Your task to perform on an android device: toggle pop-ups in chrome Image 0: 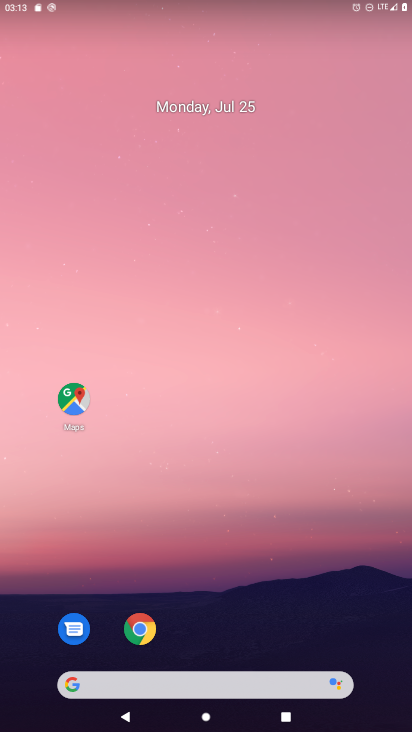
Step 0: click (135, 627)
Your task to perform on an android device: toggle pop-ups in chrome Image 1: 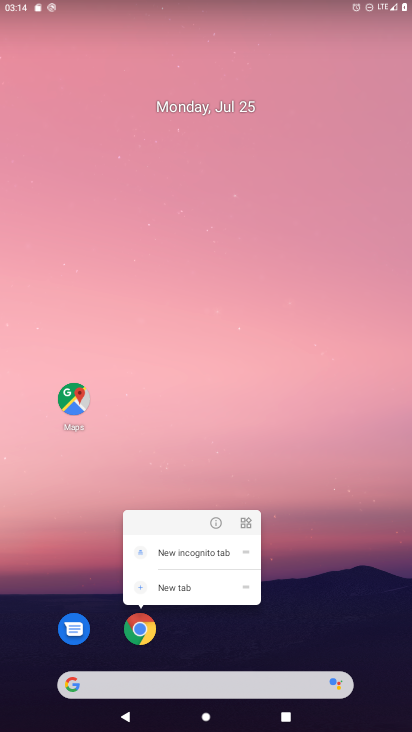
Step 1: click (148, 640)
Your task to perform on an android device: toggle pop-ups in chrome Image 2: 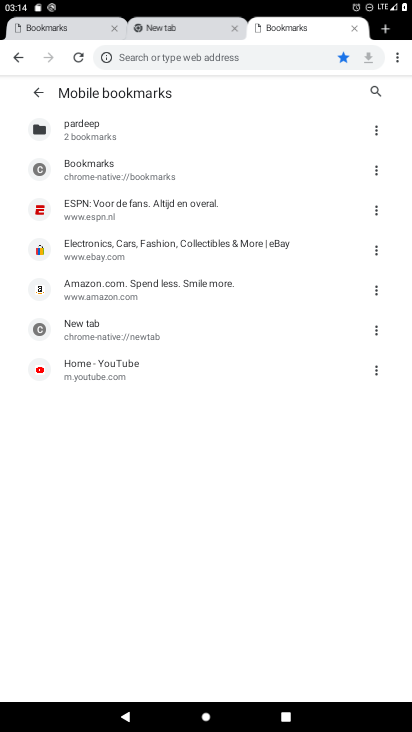
Step 2: drag from (398, 52) to (248, 257)
Your task to perform on an android device: toggle pop-ups in chrome Image 3: 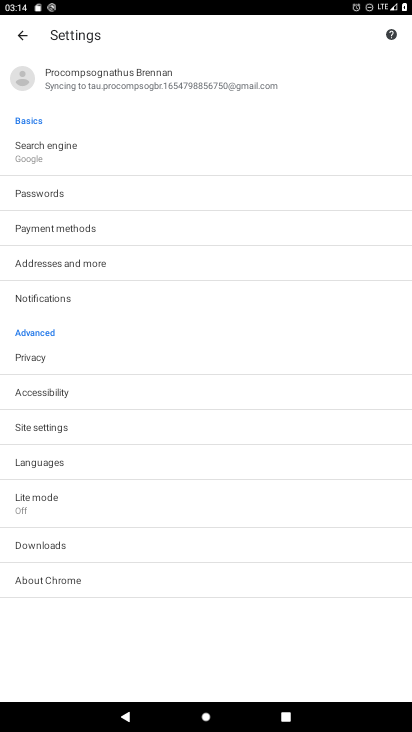
Step 3: click (44, 425)
Your task to perform on an android device: toggle pop-ups in chrome Image 4: 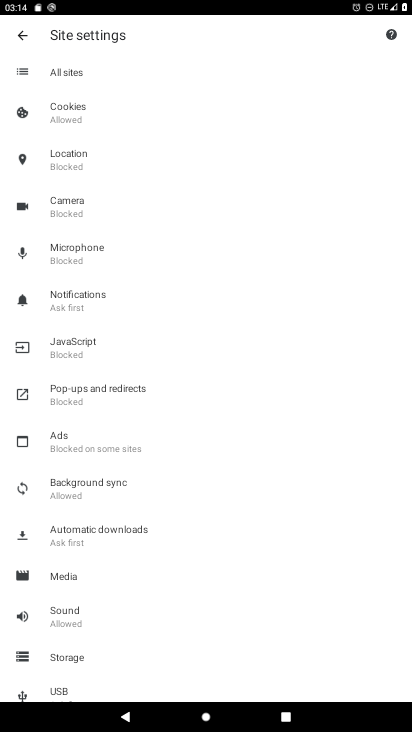
Step 4: click (71, 389)
Your task to perform on an android device: toggle pop-ups in chrome Image 5: 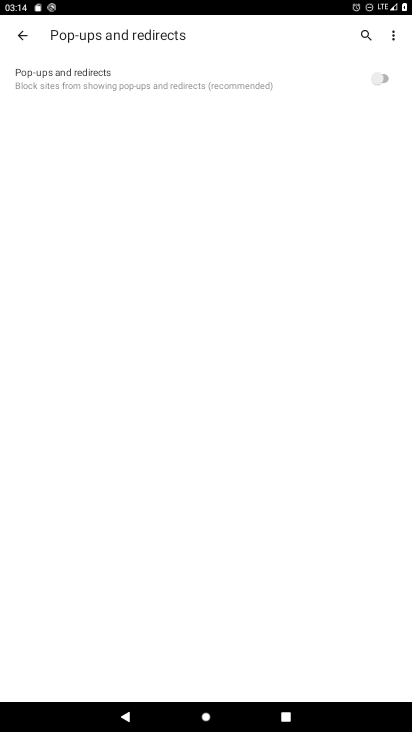
Step 5: click (205, 88)
Your task to perform on an android device: toggle pop-ups in chrome Image 6: 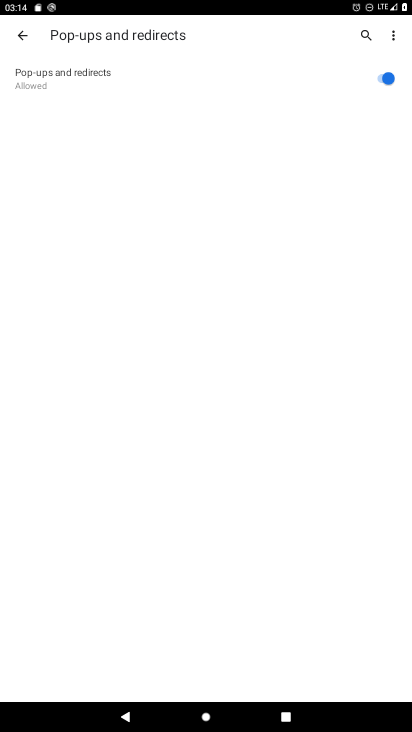
Step 6: task complete